Your task to perform on an android device: Go to privacy settings Image 0: 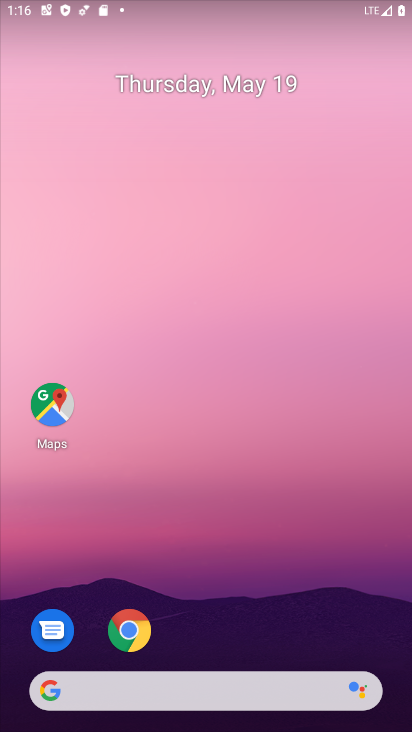
Step 0: drag from (233, 663) to (211, 69)
Your task to perform on an android device: Go to privacy settings Image 1: 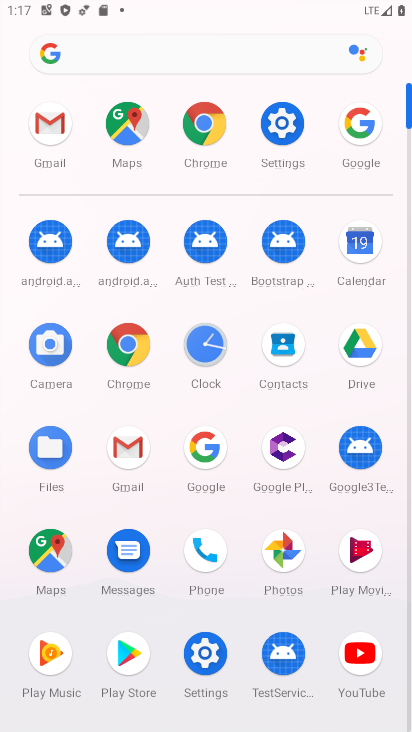
Step 1: click (224, 647)
Your task to perform on an android device: Go to privacy settings Image 2: 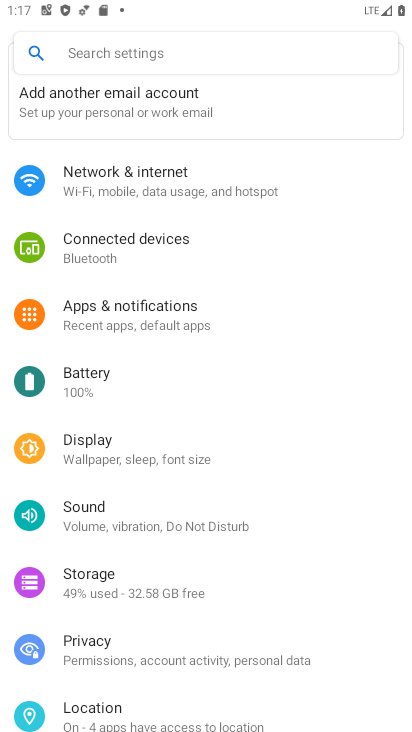
Step 2: click (115, 622)
Your task to perform on an android device: Go to privacy settings Image 3: 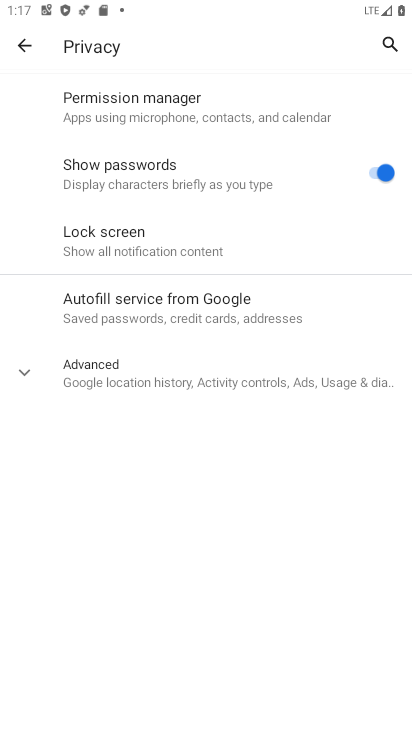
Step 3: task complete